Your task to perform on an android device: Go to accessibility settings Image 0: 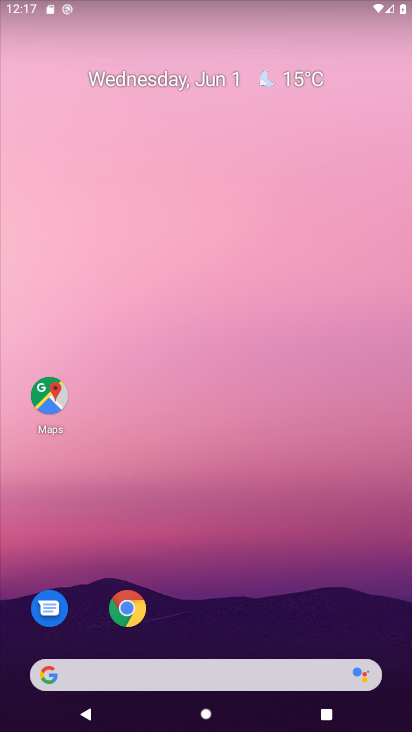
Step 0: drag from (193, 618) to (216, 159)
Your task to perform on an android device: Go to accessibility settings Image 1: 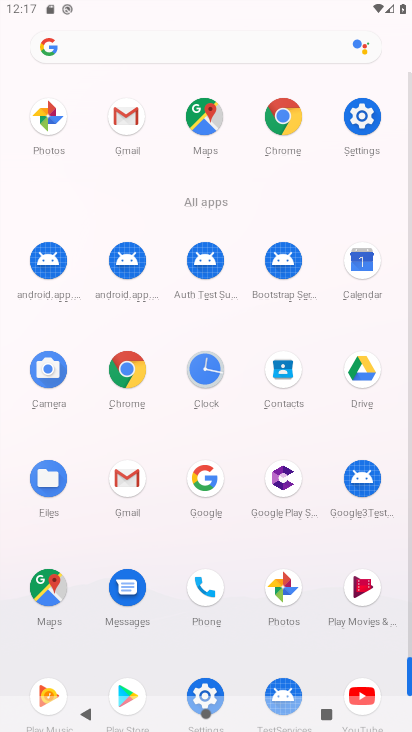
Step 1: click (355, 143)
Your task to perform on an android device: Go to accessibility settings Image 2: 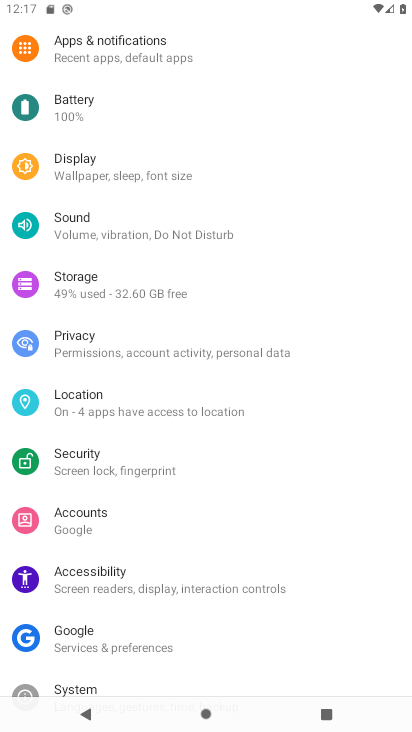
Step 2: click (122, 578)
Your task to perform on an android device: Go to accessibility settings Image 3: 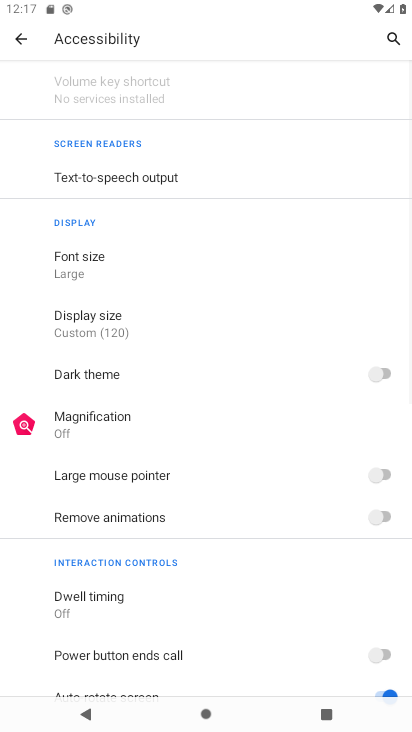
Step 3: task complete